Your task to perform on an android device: allow notifications from all sites in the chrome app Image 0: 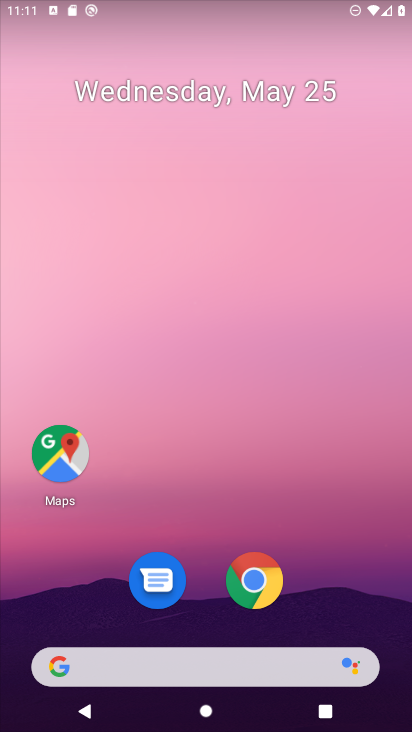
Step 0: press home button
Your task to perform on an android device: allow notifications from all sites in the chrome app Image 1: 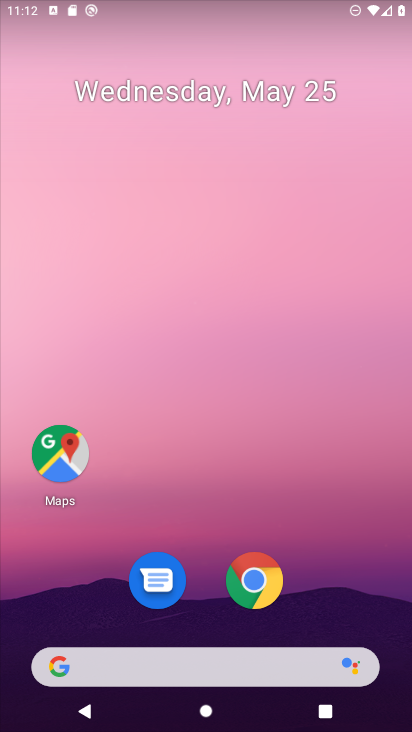
Step 1: press home button
Your task to perform on an android device: allow notifications from all sites in the chrome app Image 2: 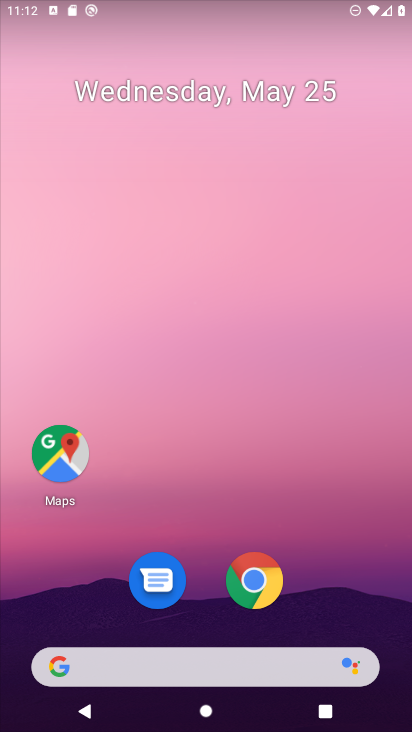
Step 2: drag from (13, 650) to (331, 72)
Your task to perform on an android device: allow notifications from all sites in the chrome app Image 3: 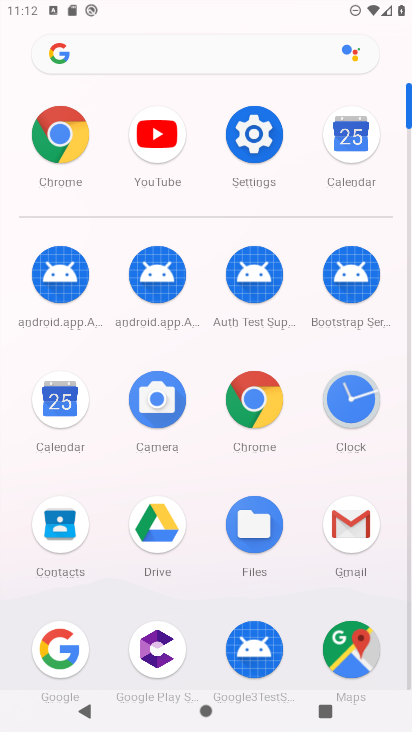
Step 3: click (253, 394)
Your task to perform on an android device: allow notifications from all sites in the chrome app Image 4: 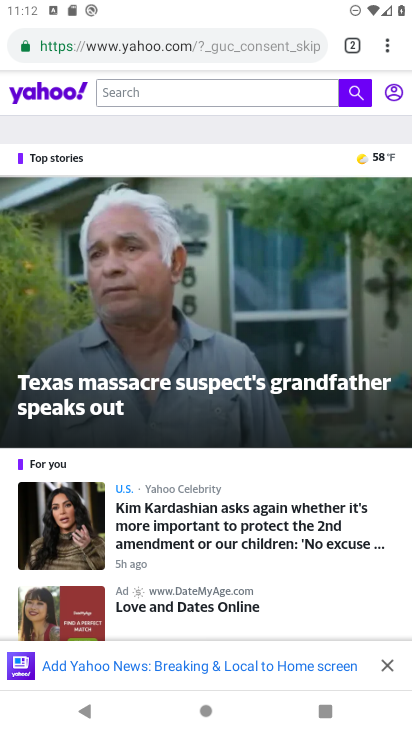
Step 4: click (386, 48)
Your task to perform on an android device: allow notifications from all sites in the chrome app Image 5: 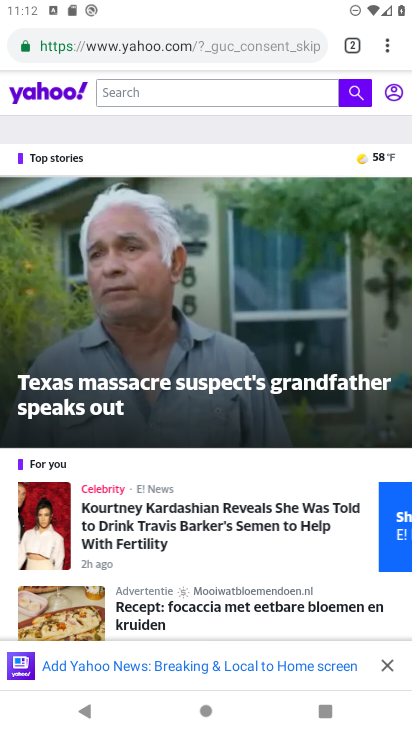
Step 5: click (388, 45)
Your task to perform on an android device: allow notifications from all sites in the chrome app Image 6: 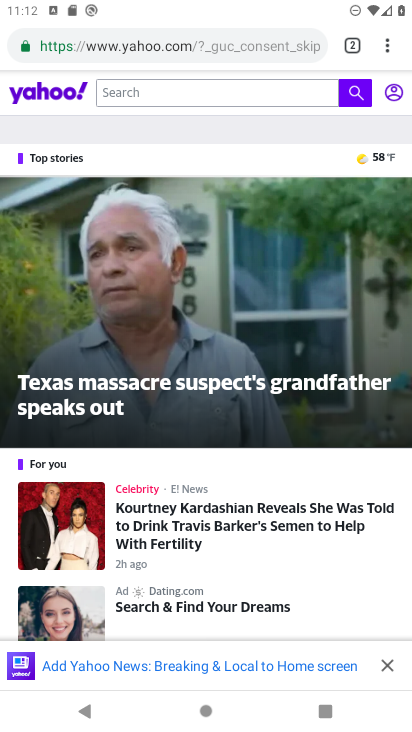
Step 6: click (386, 40)
Your task to perform on an android device: allow notifications from all sites in the chrome app Image 7: 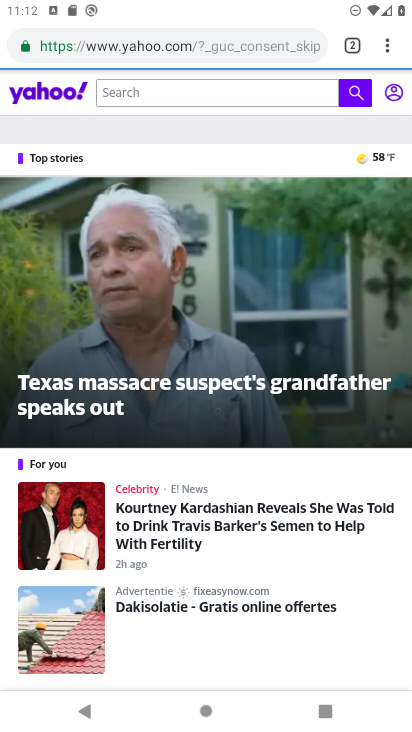
Step 7: click (387, 49)
Your task to perform on an android device: allow notifications from all sites in the chrome app Image 8: 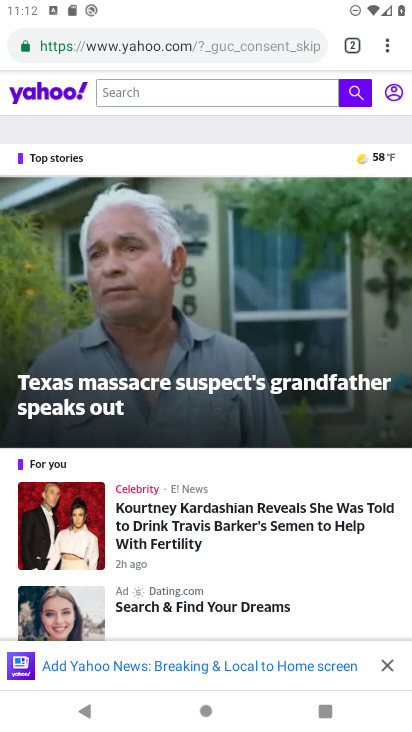
Step 8: click (387, 55)
Your task to perform on an android device: allow notifications from all sites in the chrome app Image 9: 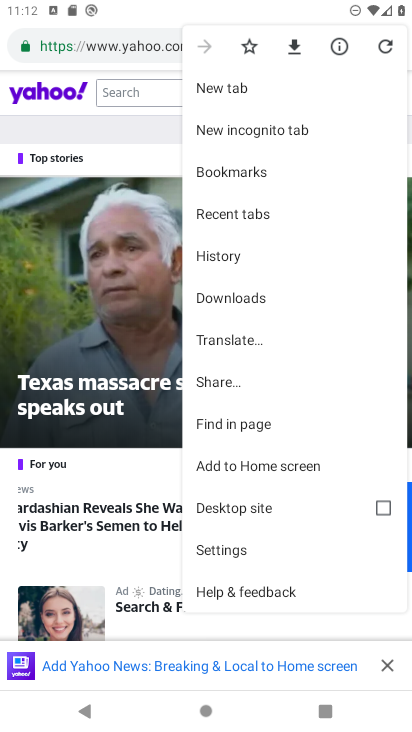
Step 9: click (258, 551)
Your task to perform on an android device: allow notifications from all sites in the chrome app Image 10: 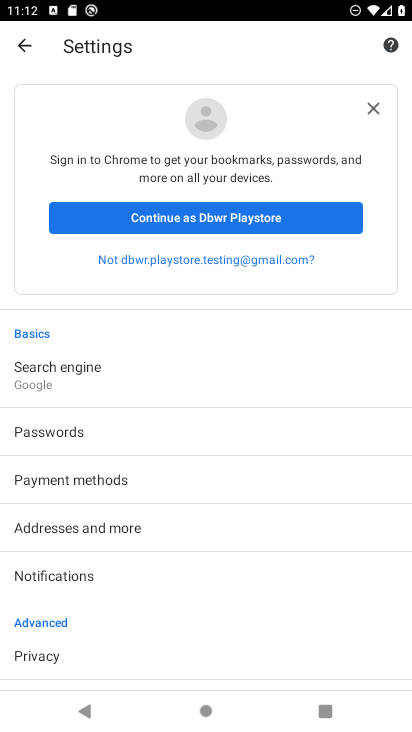
Step 10: drag from (7, 561) to (306, 63)
Your task to perform on an android device: allow notifications from all sites in the chrome app Image 11: 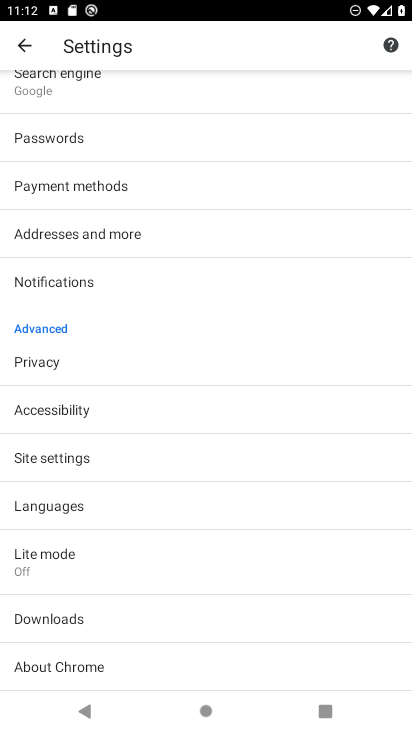
Step 11: click (61, 456)
Your task to perform on an android device: allow notifications from all sites in the chrome app Image 12: 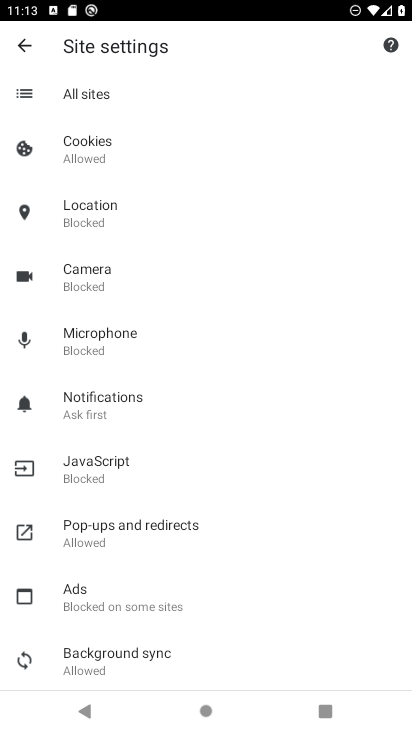
Step 12: click (120, 397)
Your task to perform on an android device: allow notifications from all sites in the chrome app Image 13: 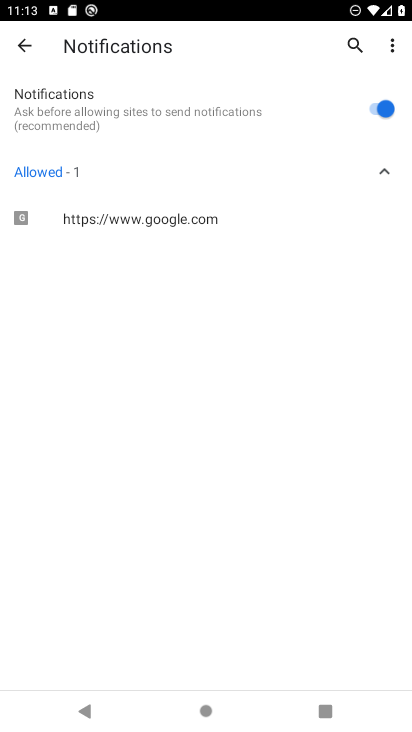
Step 13: task complete